Your task to perform on an android device: find snoozed emails in the gmail app Image 0: 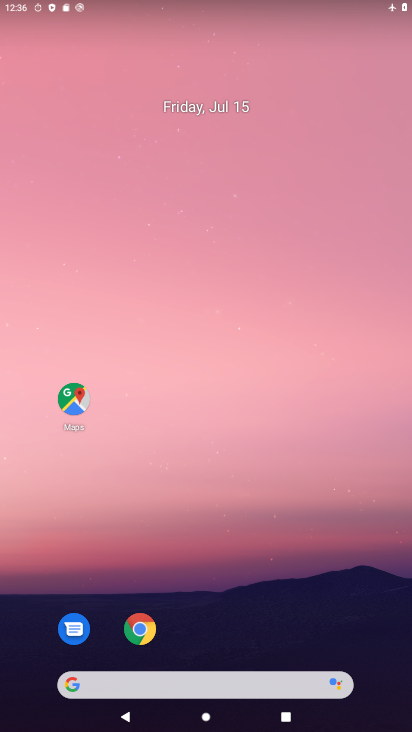
Step 0: drag from (220, 644) to (205, 75)
Your task to perform on an android device: find snoozed emails in the gmail app Image 1: 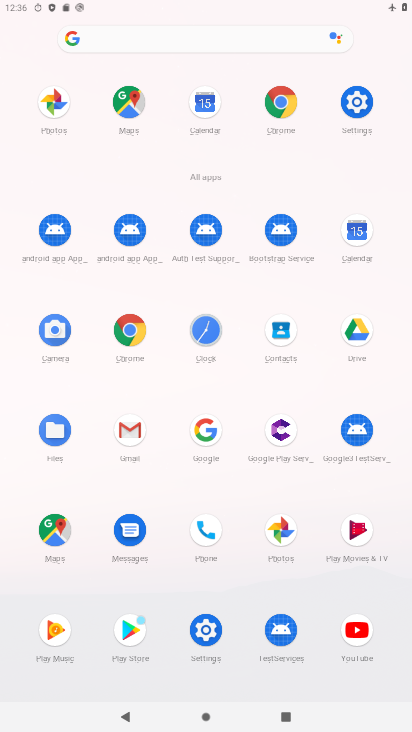
Step 1: click (134, 439)
Your task to perform on an android device: find snoozed emails in the gmail app Image 2: 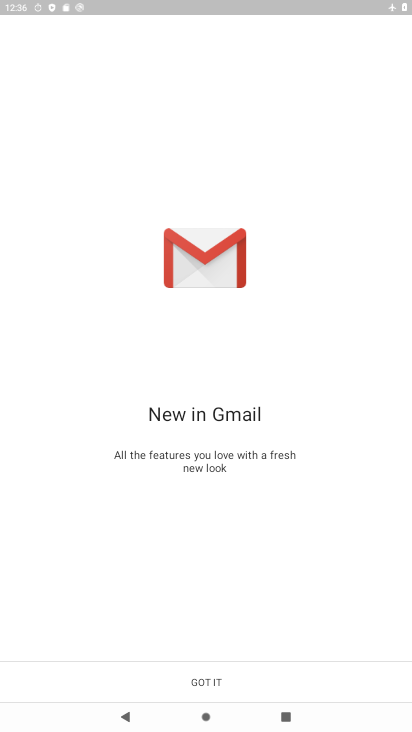
Step 2: click (239, 684)
Your task to perform on an android device: find snoozed emails in the gmail app Image 3: 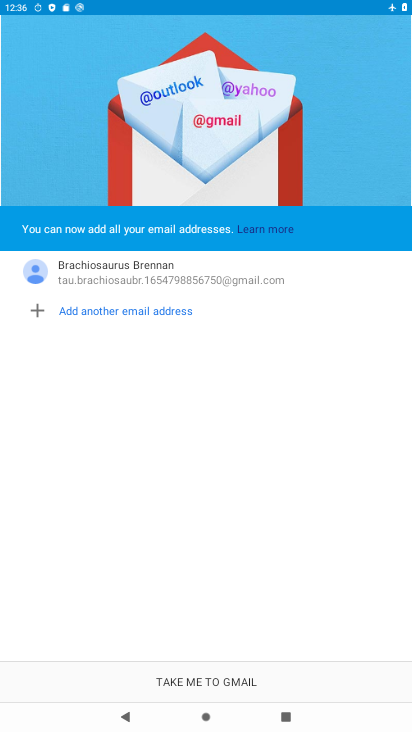
Step 3: click (250, 687)
Your task to perform on an android device: find snoozed emails in the gmail app Image 4: 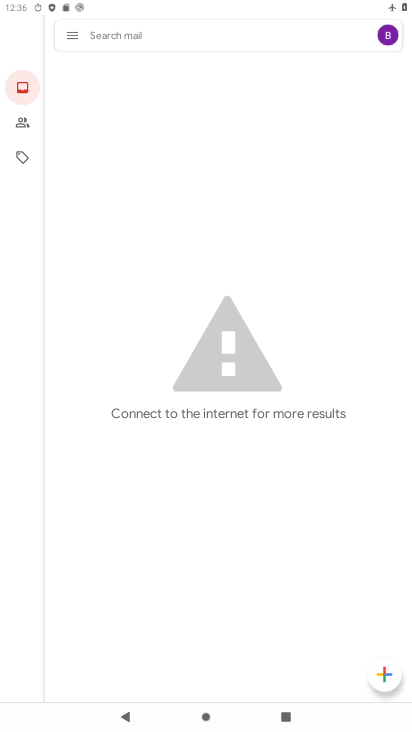
Step 4: click (68, 31)
Your task to perform on an android device: find snoozed emails in the gmail app Image 5: 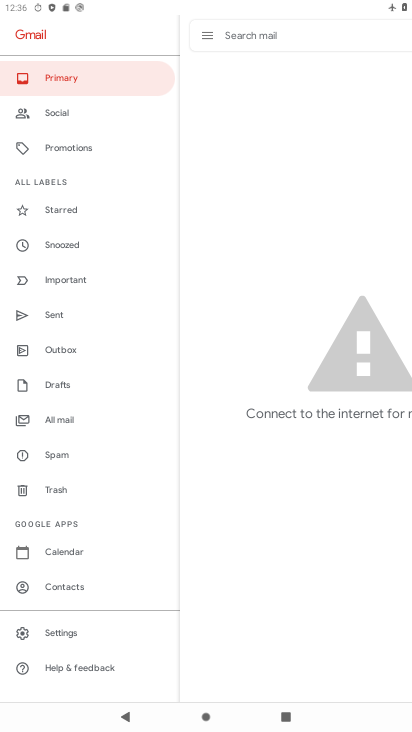
Step 5: click (72, 632)
Your task to perform on an android device: find snoozed emails in the gmail app Image 6: 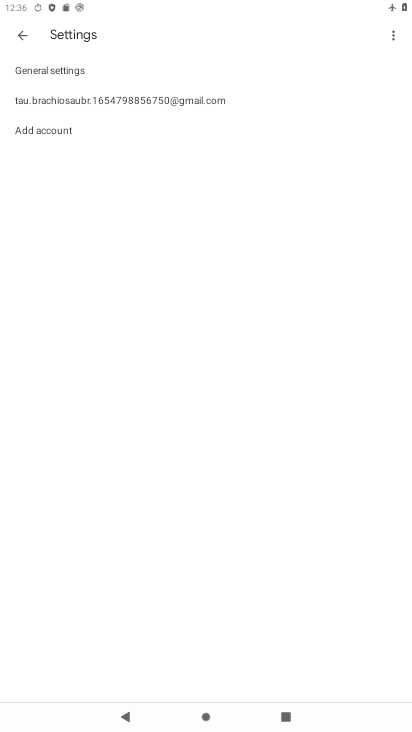
Step 6: click (24, 32)
Your task to perform on an android device: find snoozed emails in the gmail app Image 7: 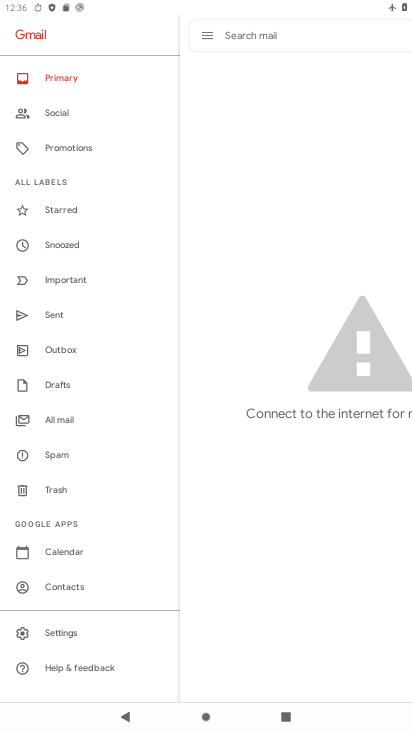
Step 7: click (54, 243)
Your task to perform on an android device: find snoozed emails in the gmail app Image 8: 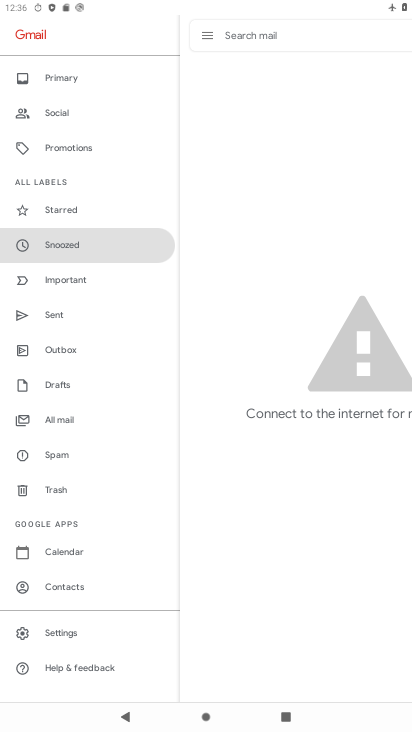
Step 8: task complete